Your task to perform on an android device: Open notification settings Image 0: 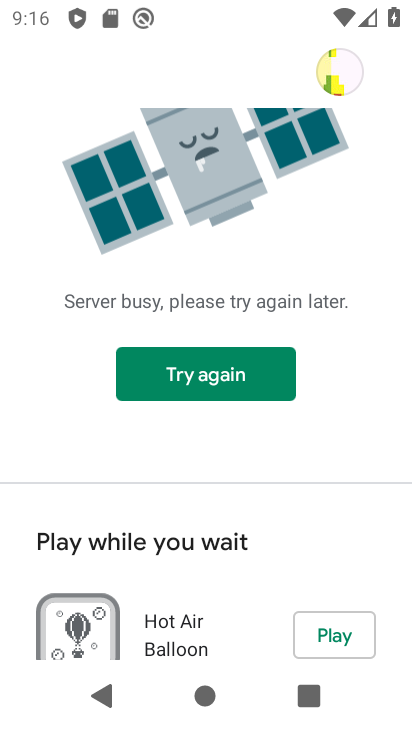
Step 0: press home button
Your task to perform on an android device: Open notification settings Image 1: 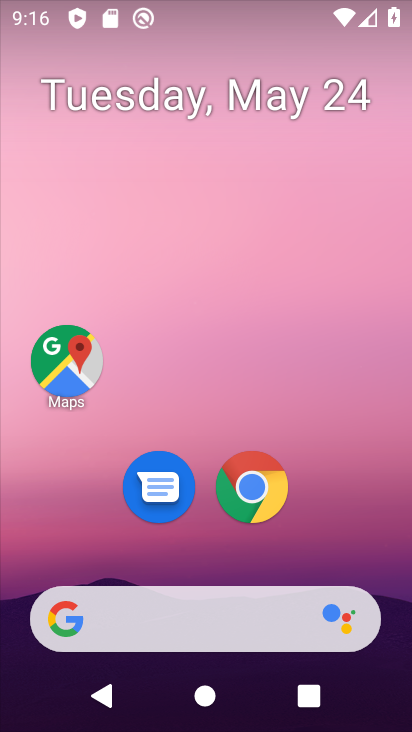
Step 1: drag from (357, 571) to (380, 18)
Your task to perform on an android device: Open notification settings Image 2: 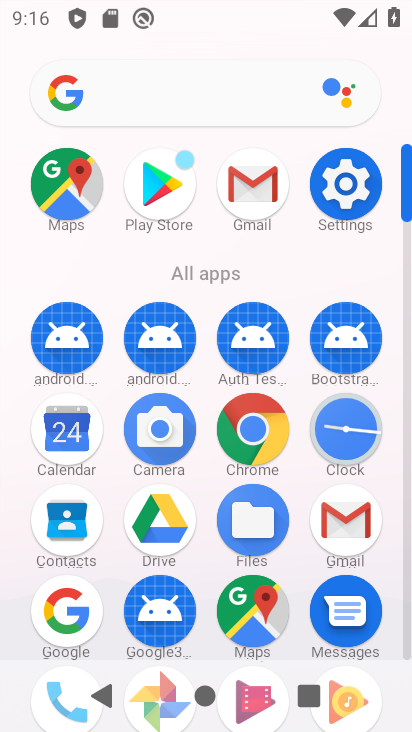
Step 2: click (346, 181)
Your task to perform on an android device: Open notification settings Image 3: 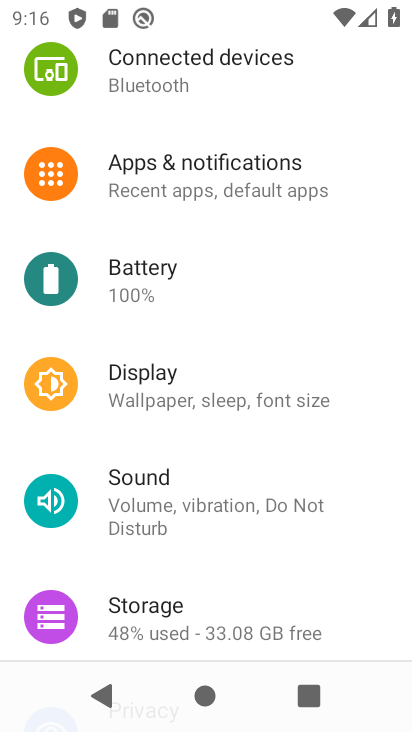
Step 3: click (219, 177)
Your task to perform on an android device: Open notification settings Image 4: 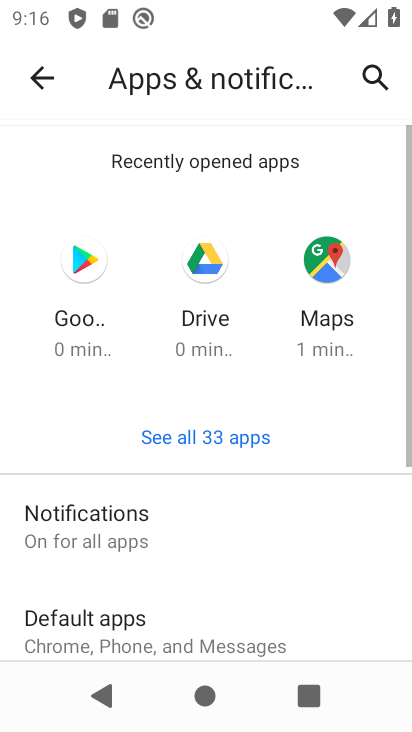
Step 4: task complete